Your task to perform on an android device: Go to Amazon Image 0: 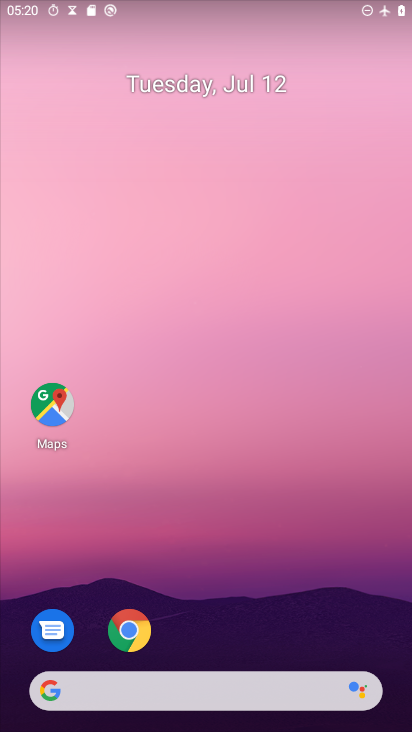
Step 0: drag from (256, 486) to (302, 36)
Your task to perform on an android device: Go to Amazon Image 1: 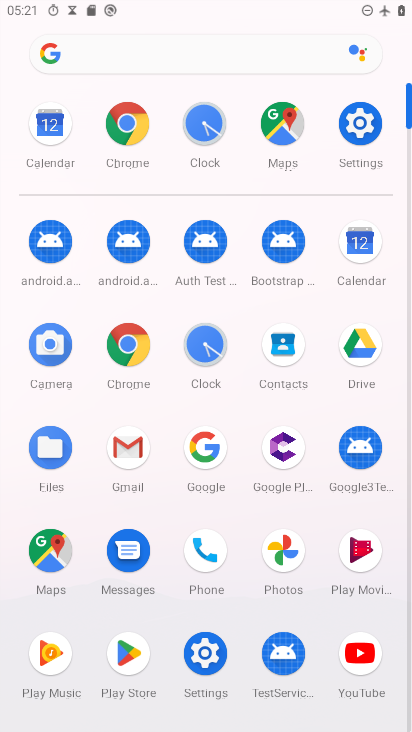
Step 1: click (138, 347)
Your task to perform on an android device: Go to Amazon Image 2: 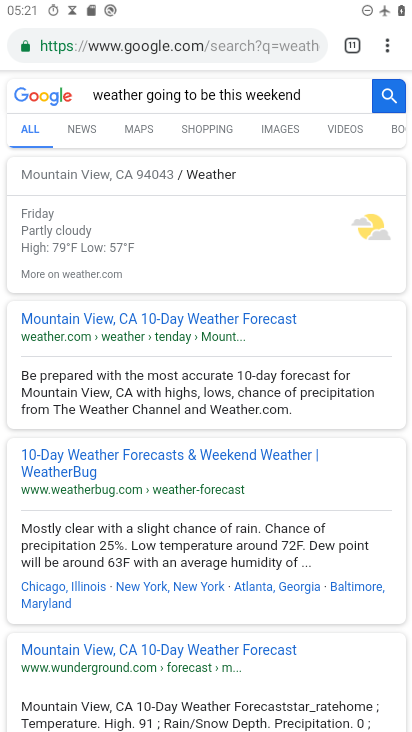
Step 2: click (384, 46)
Your task to perform on an android device: Go to Amazon Image 3: 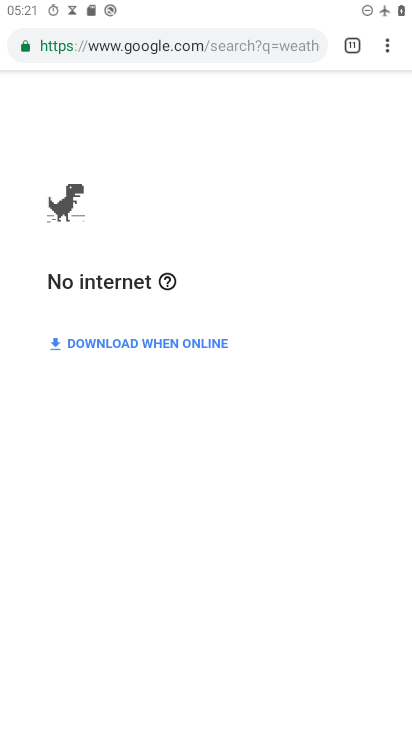
Step 3: task complete